Your task to perform on an android device: see tabs open on other devices in the chrome app Image 0: 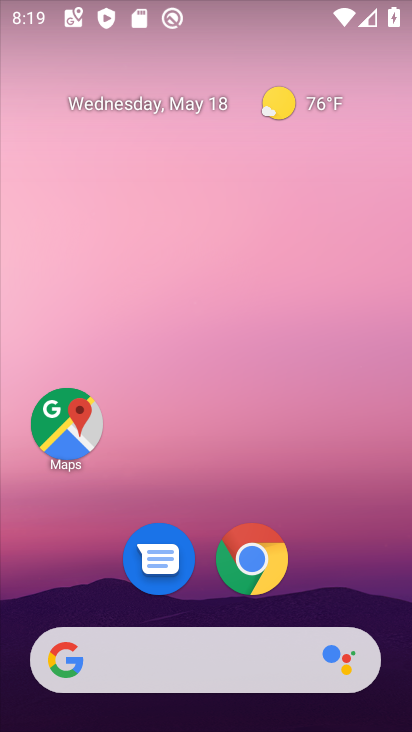
Step 0: click (253, 567)
Your task to perform on an android device: see tabs open on other devices in the chrome app Image 1: 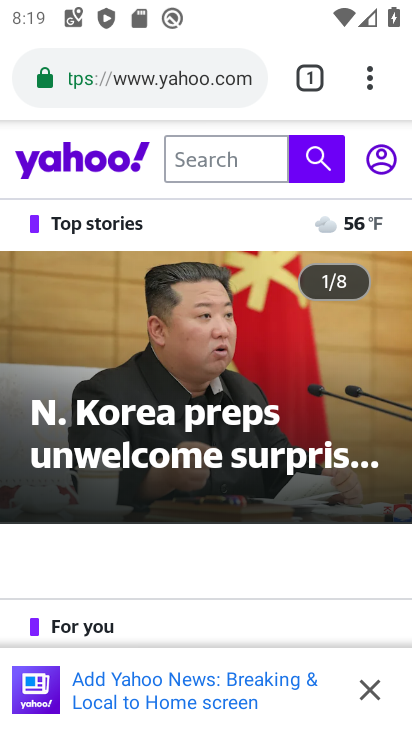
Step 1: click (295, 80)
Your task to perform on an android device: see tabs open on other devices in the chrome app Image 2: 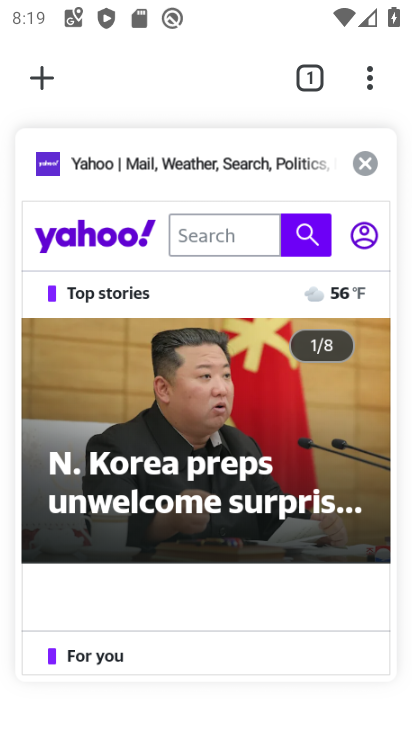
Step 2: click (48, 87)
Your task to perform on an android device: see tabs open on other devices in the chrome app Image 3: 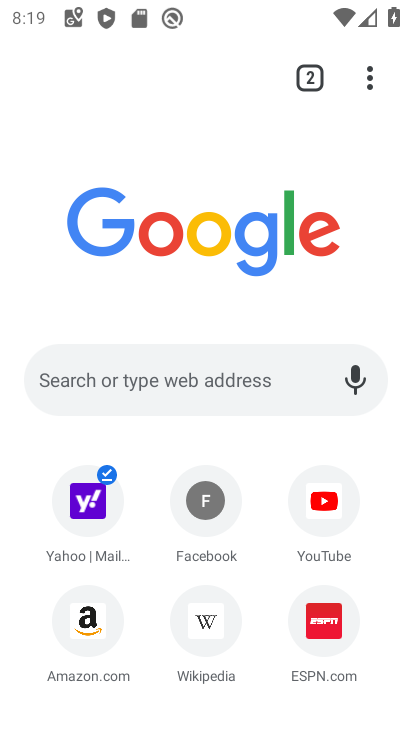
Step 3: task complete